Your task to perform on an android device: turn on the 24-hour format for clock Image 0: 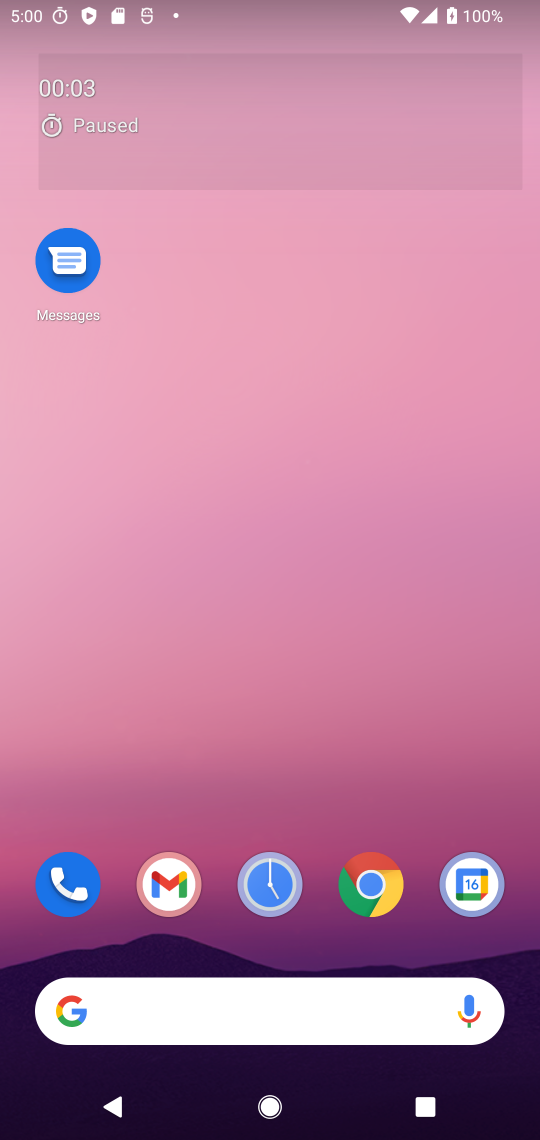
Step 0: click (254, 886)
Your task to perform on an android device: turn on the 24-hour format for clock Image 1: 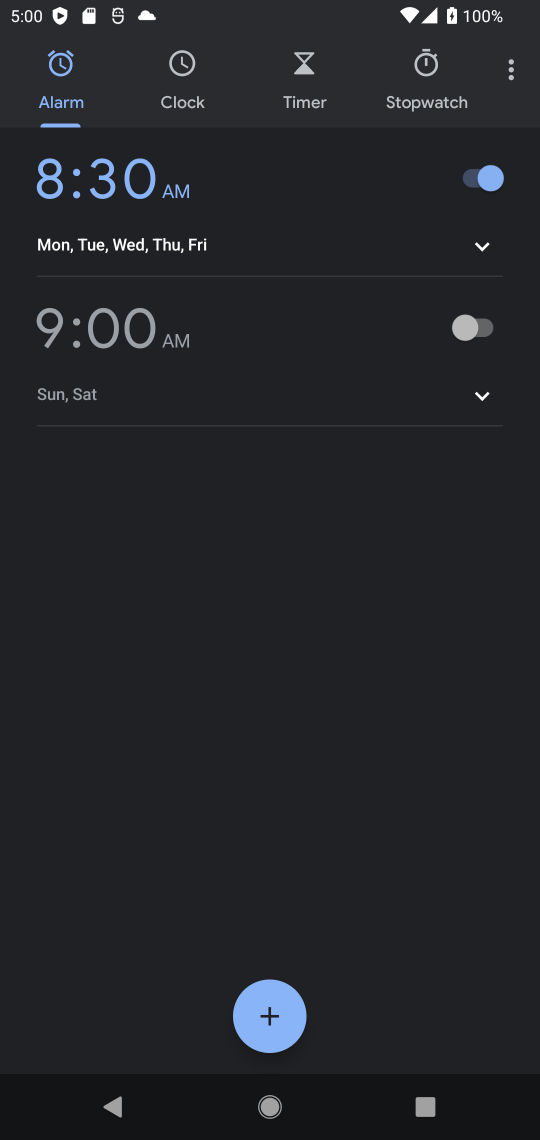
Step 1: click (513, 71)
Your task to perform on an android device: turn on the 24-hour format for clock Image 2: 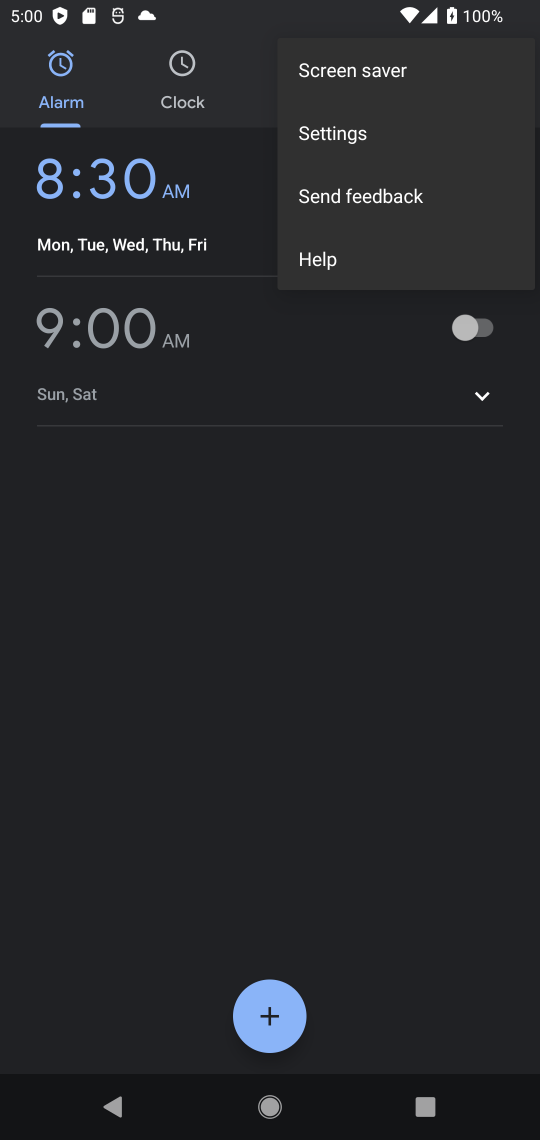
Step 2: click (341, 146)
Your task to perform on an android device: turn on the 24-hour format for clock Image 3: 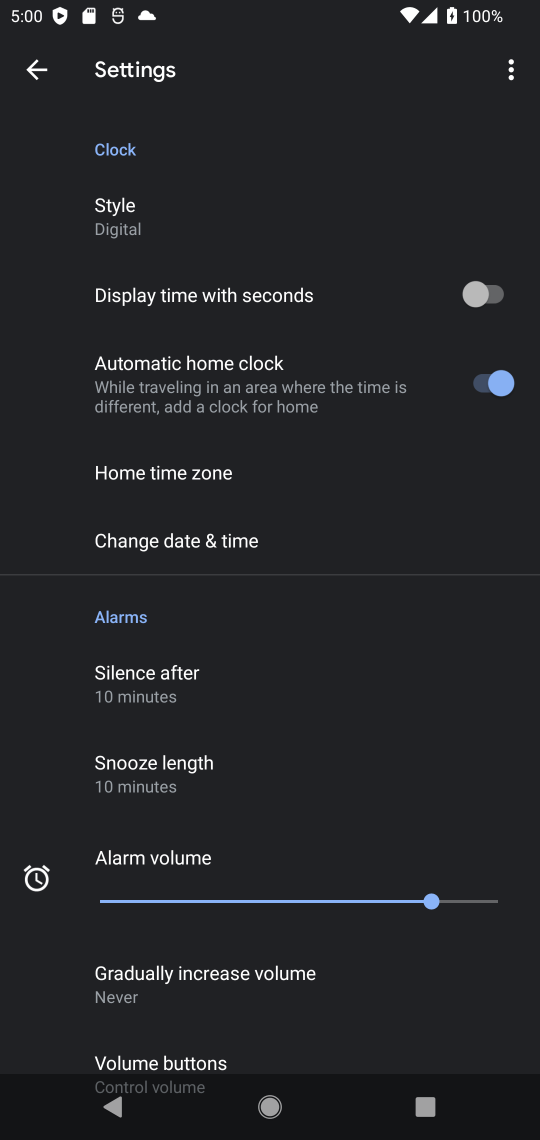
Step 3: click (138, 552)
Your task to perform on an android device: turn on the 24-hour format for clock Image 4: 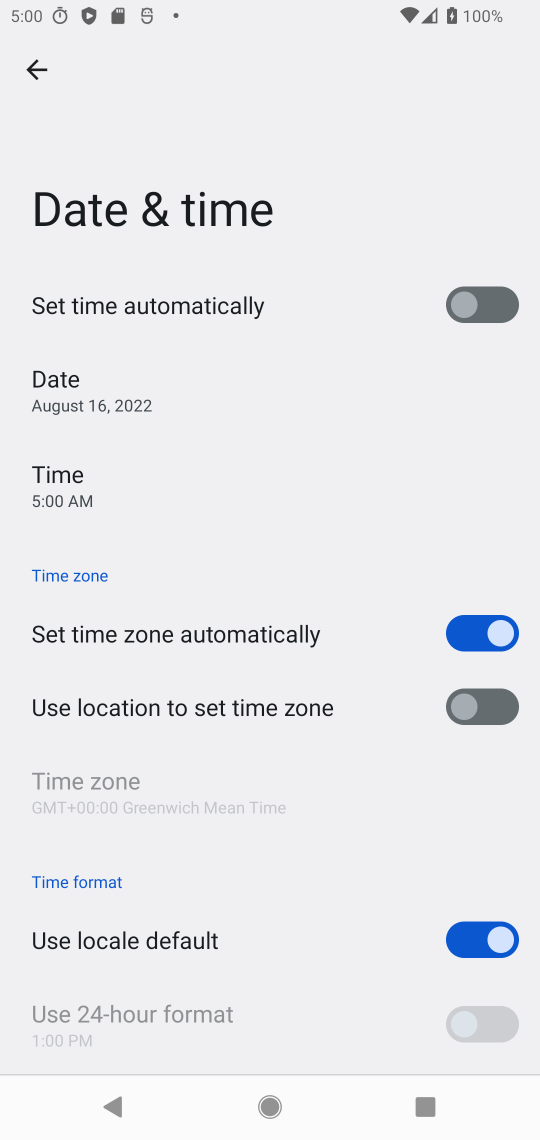
Step 4: click (480, 1029)
Your task to perform on an android device: turn on the 24-hour format for clock Image 5: 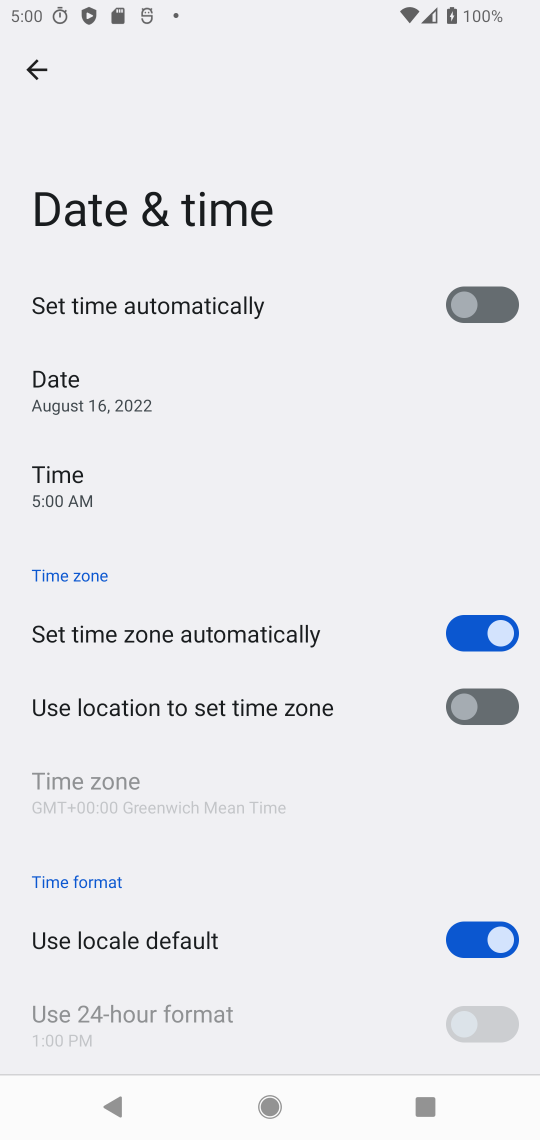
Step 5: click (465, 1019)
Your task to perform on an android device: turn on the 24-hour format for clock Image 6: 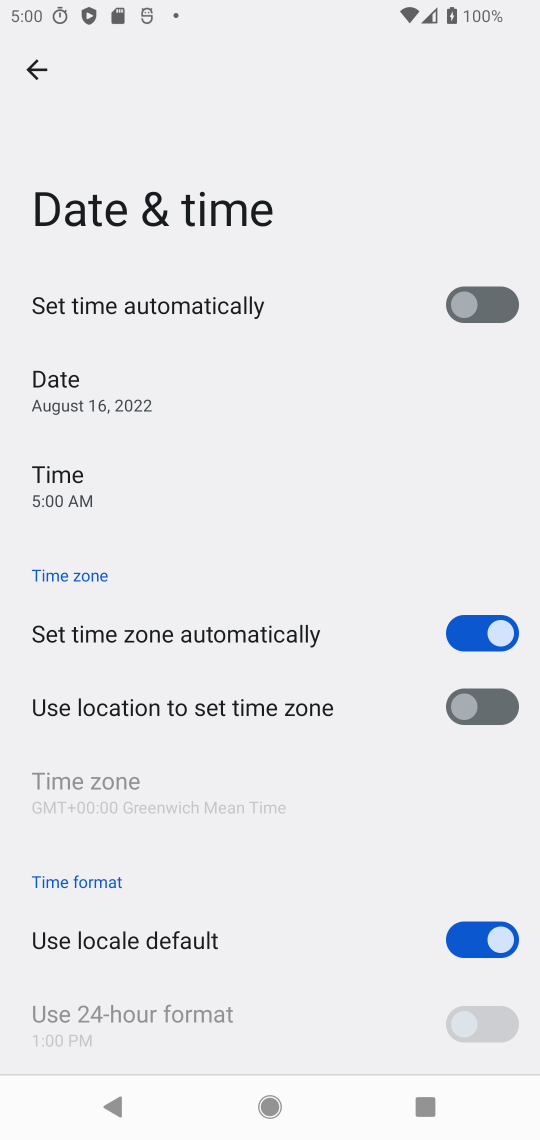
Step 6: click (504, 939)
Your task to perform on an android device: turn on the 24-hour format for clock Image 7: 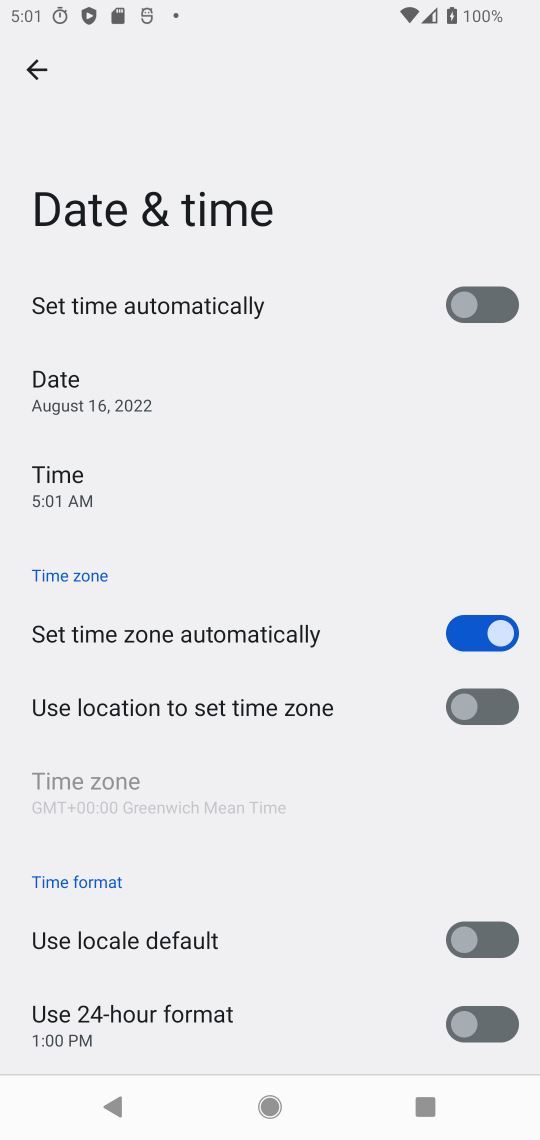
Step 7: click (462, 1028)
Your task to perform on an android device: turn on the 24-hour format for clock Image 8: 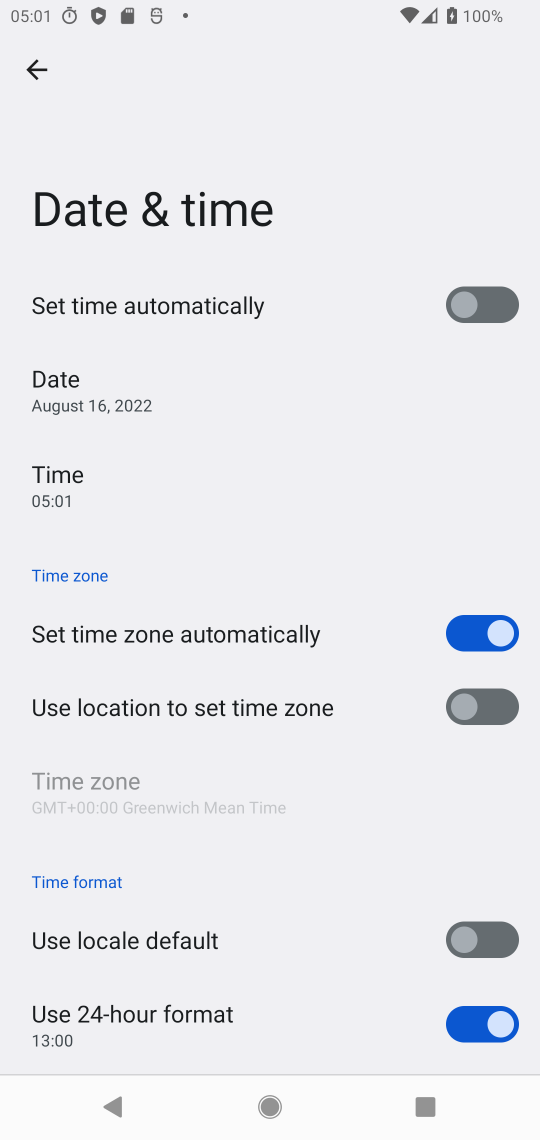
Step 8: task complete